Your task to perform on an android device: Open notification settings Image 0: 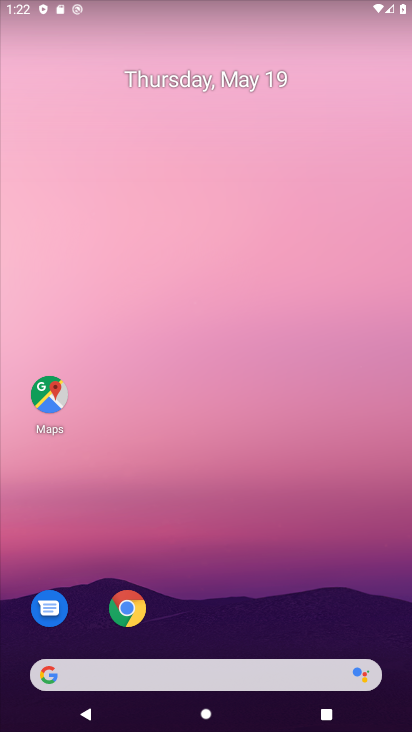
Step 0: drag from (289, 598) to (196, 137)
Your task to perform on an android device: Open notification settings Image 1: 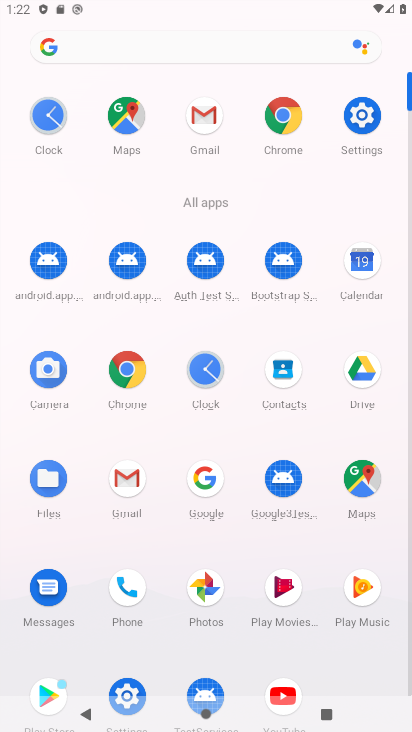
Step 1: click (348, 137)
Your task to perform on an android device: Open notification settings Image 2: 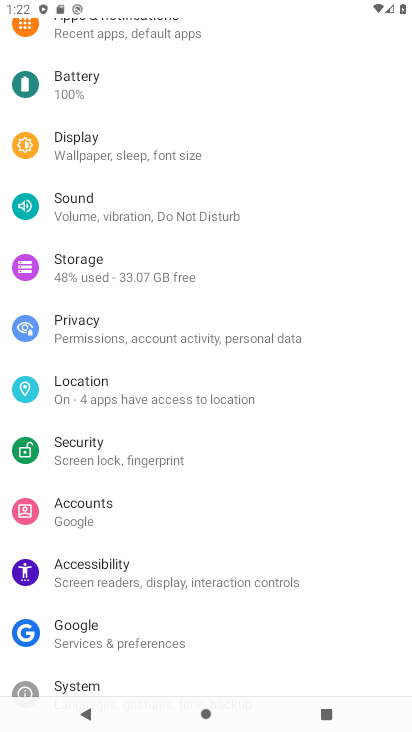
Step 2: click (131, 40)
Your task to perform on an android device: Open notification settings Image 3: 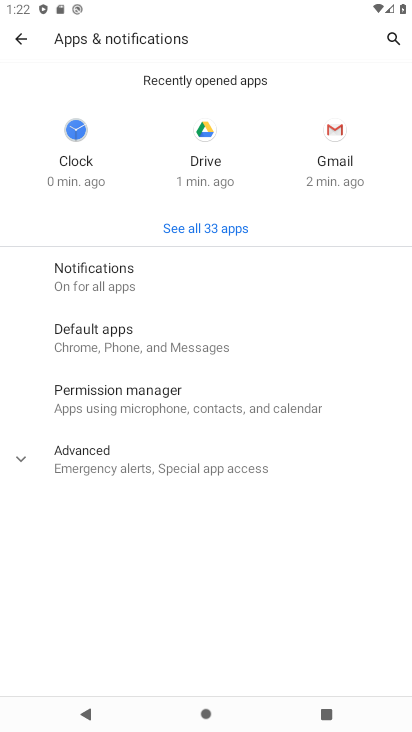
Step 3: task complete